Your task to perform on an android device: turn on translation in the chrome app Image 0: 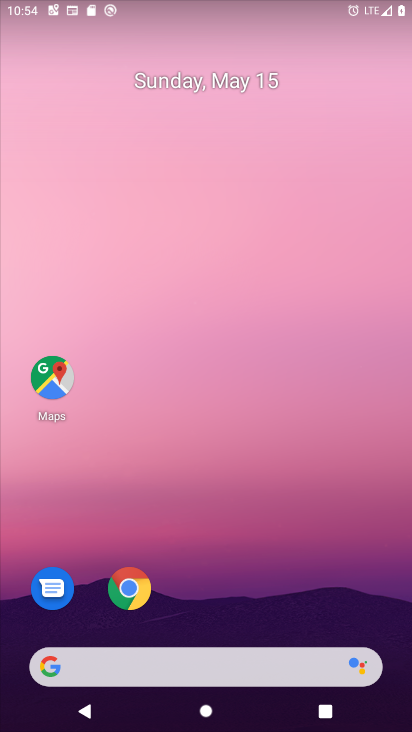
Step 0: click (118, 585)
Your task to perform on an android device: turn on translation in the chrome app Image 1: 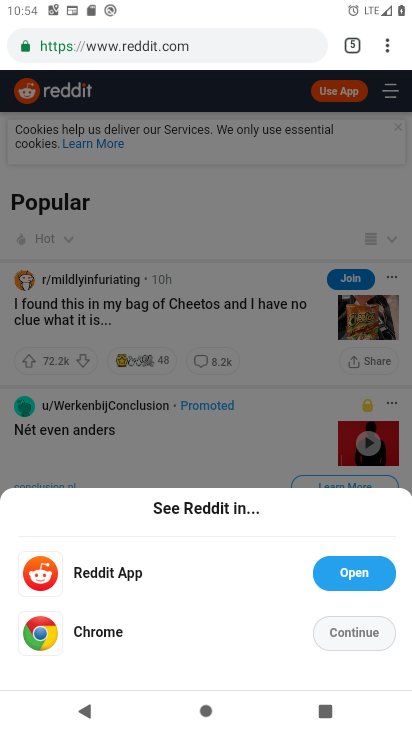
Step 1: click (388, 43)
Your task to perform on an android device: turn on translation in the chrome app Image 2: 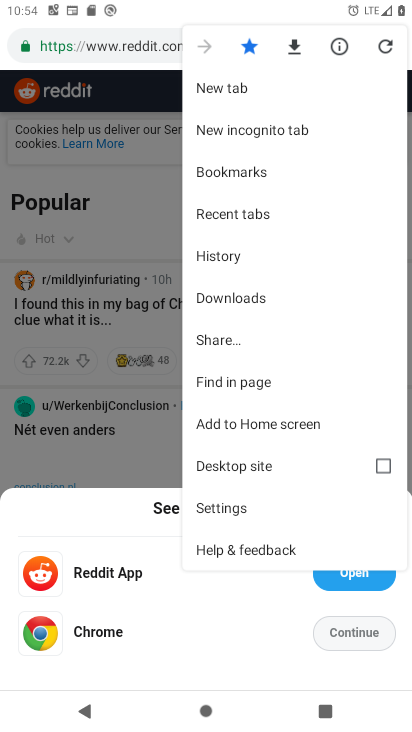
Step 2: click (234, 499)
Your task to perform on an android device: turn on translation in the chrome app Image 3: 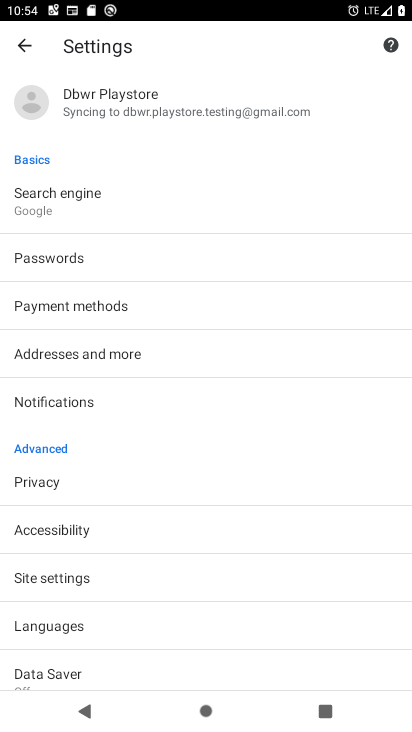
Step 3: click (82, 627)
Your task to perform on an android device: turn on translation in the chrome app Image 4: 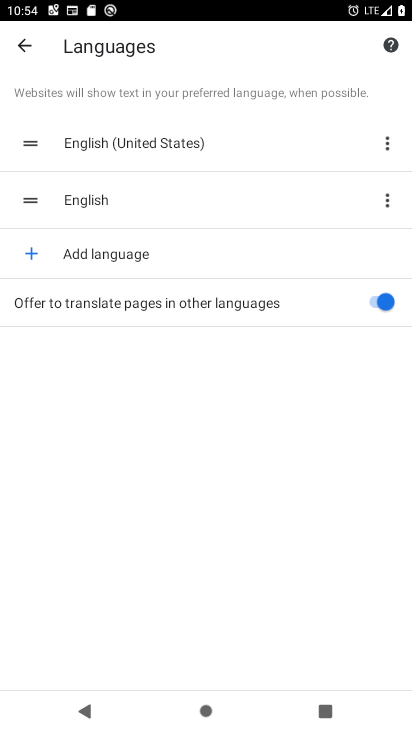
Step 4: task complete